Your task to perform on an android device: move a message to another label in the gmail app Image 0: 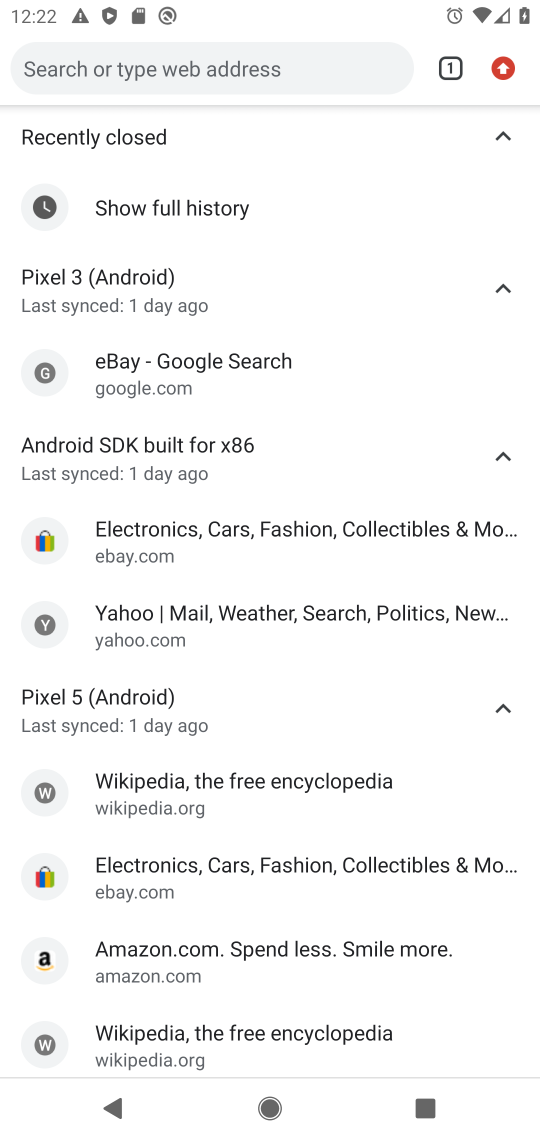
Step 0: press home button
Your task to perform on an android device: move a message to another label in the gmail app Image 1: 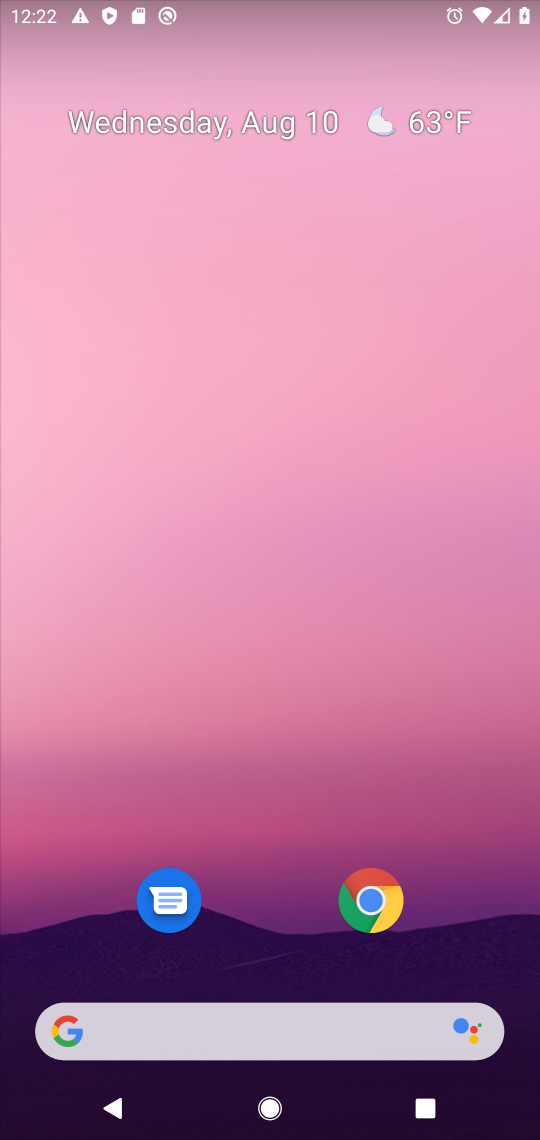
Step 1: drag from (290, 853) to (260, 18)
Your task to perform on an android device: move a message to another label in the gmail app Image 2: 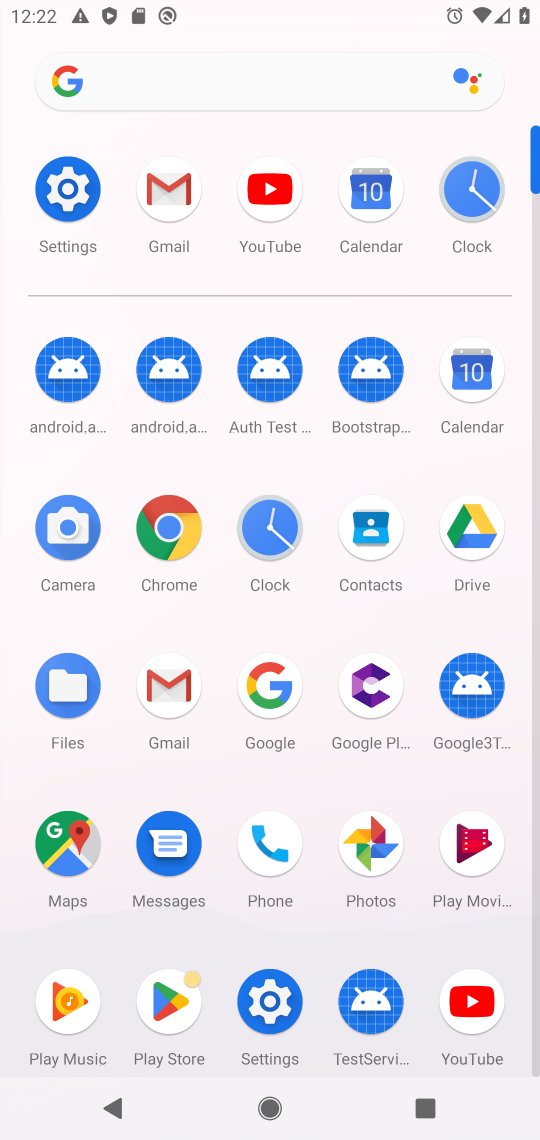
Step 2: click (178, 183)
Your task to perform on an android device: move a message to another label in the gmail app Image 3: 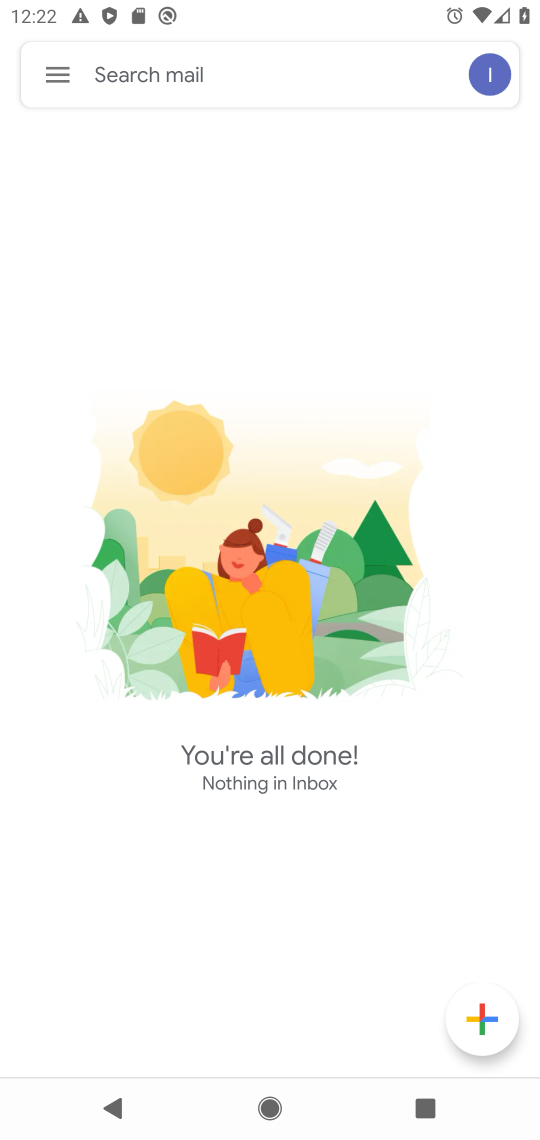
Step 3: click (64, 75)
Your task to perform on an android device: move a message to another label in the gmail app Image 4: 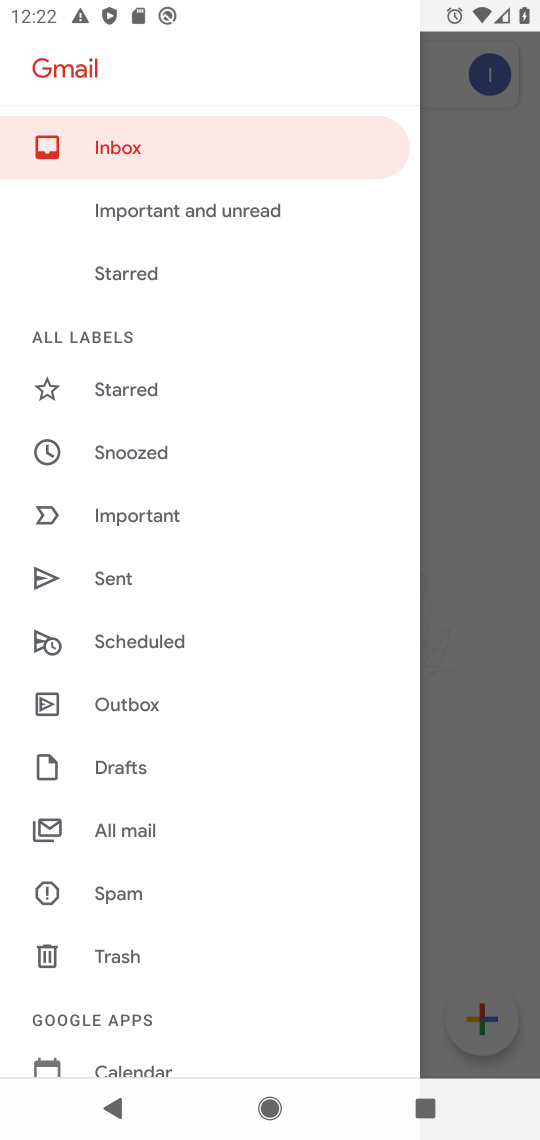
Step 4: click (146, 822)
Your task to perform on an android device: move a message to another label in the gmail app Image 5: 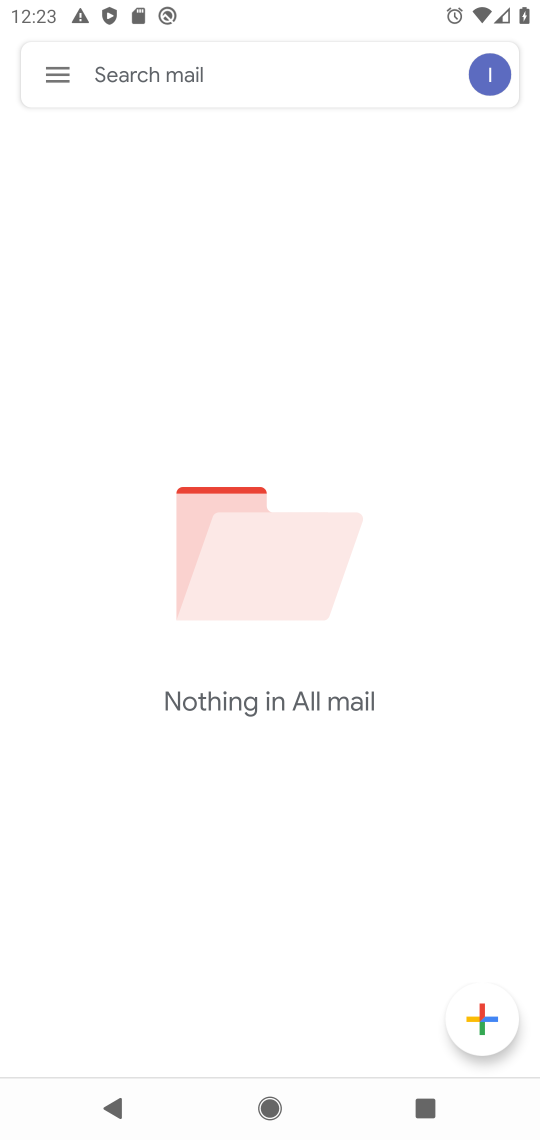
Step 5: task complete